Your task to perform on an android device: add a contact Image 0: 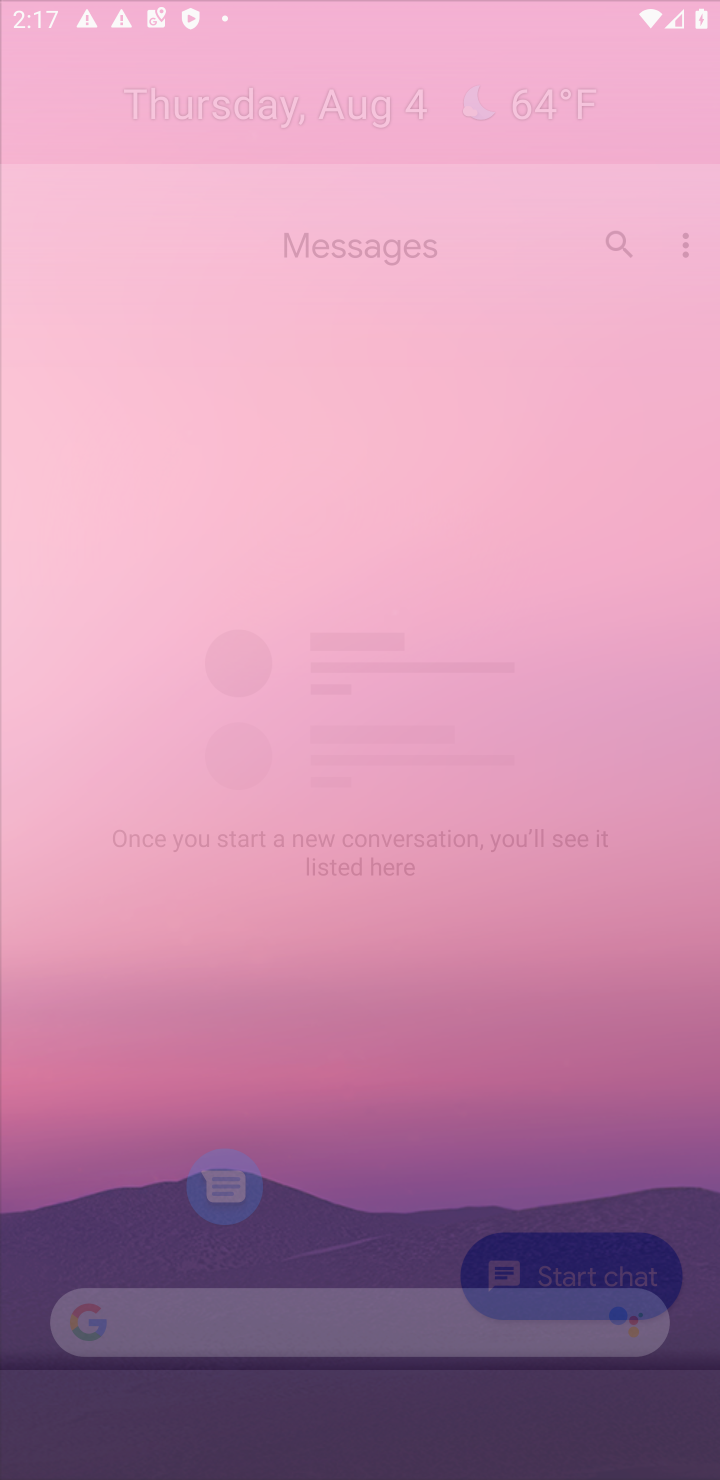
Step 0: press home button
Your task to perform on an android device: add a contact Image 1: 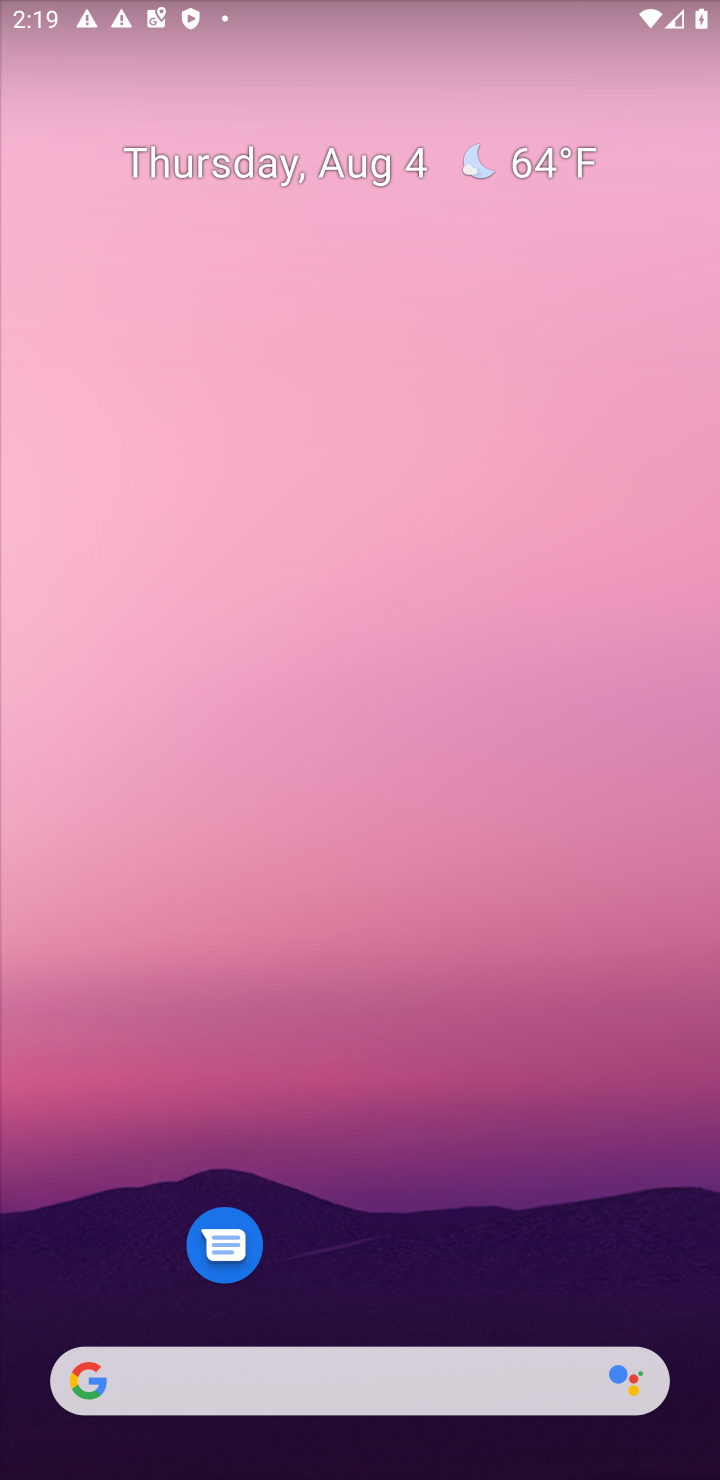
Step 1: press home button
Your task to perform on an android device: add a contact Image 2: 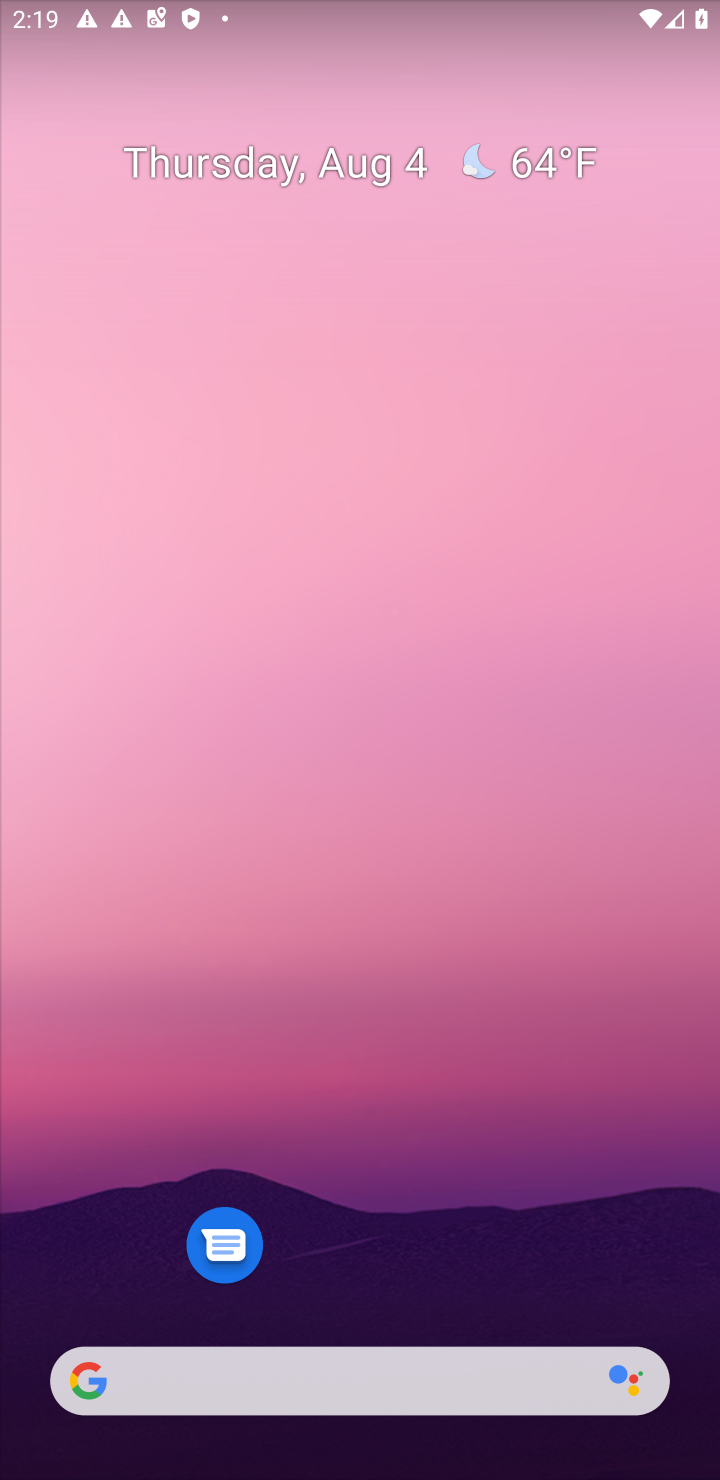
Step 2: drag from (269, 1309) to (323, 483)
Your task to perform on an android device: add a contact Image 3: 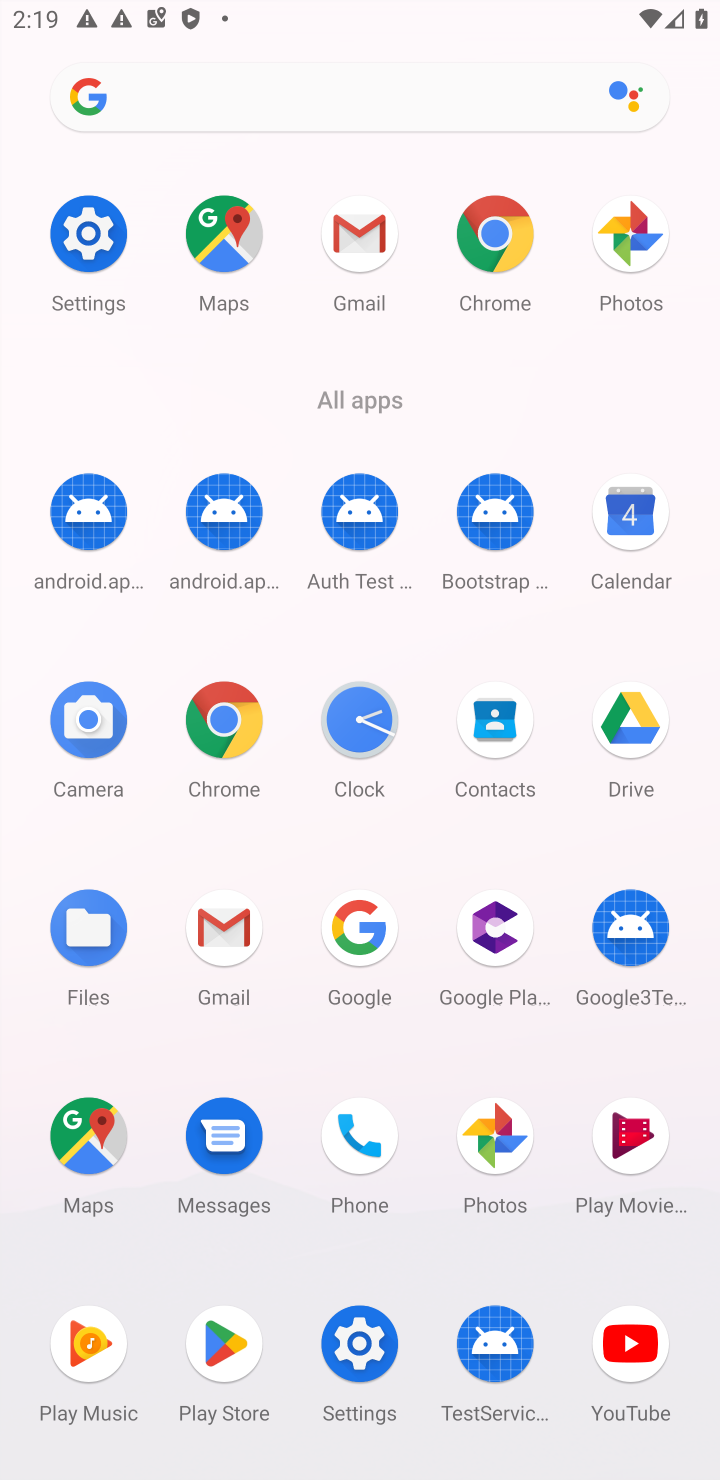
Step 3: click (335, 1117)
Your task to perform on an android device: add a contact Image 4: 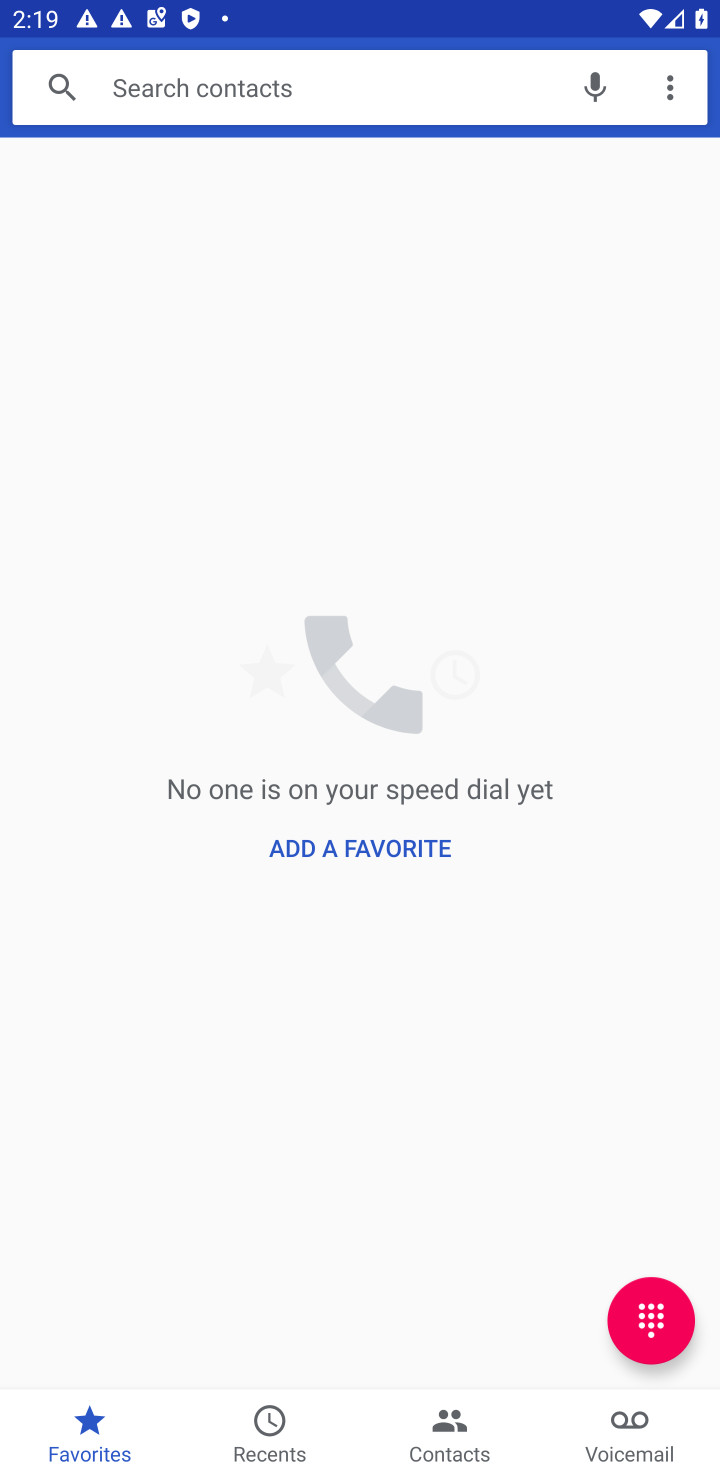
Step 4: click (363, 848)
Your task to perform on an android device: add a contact Image 5: 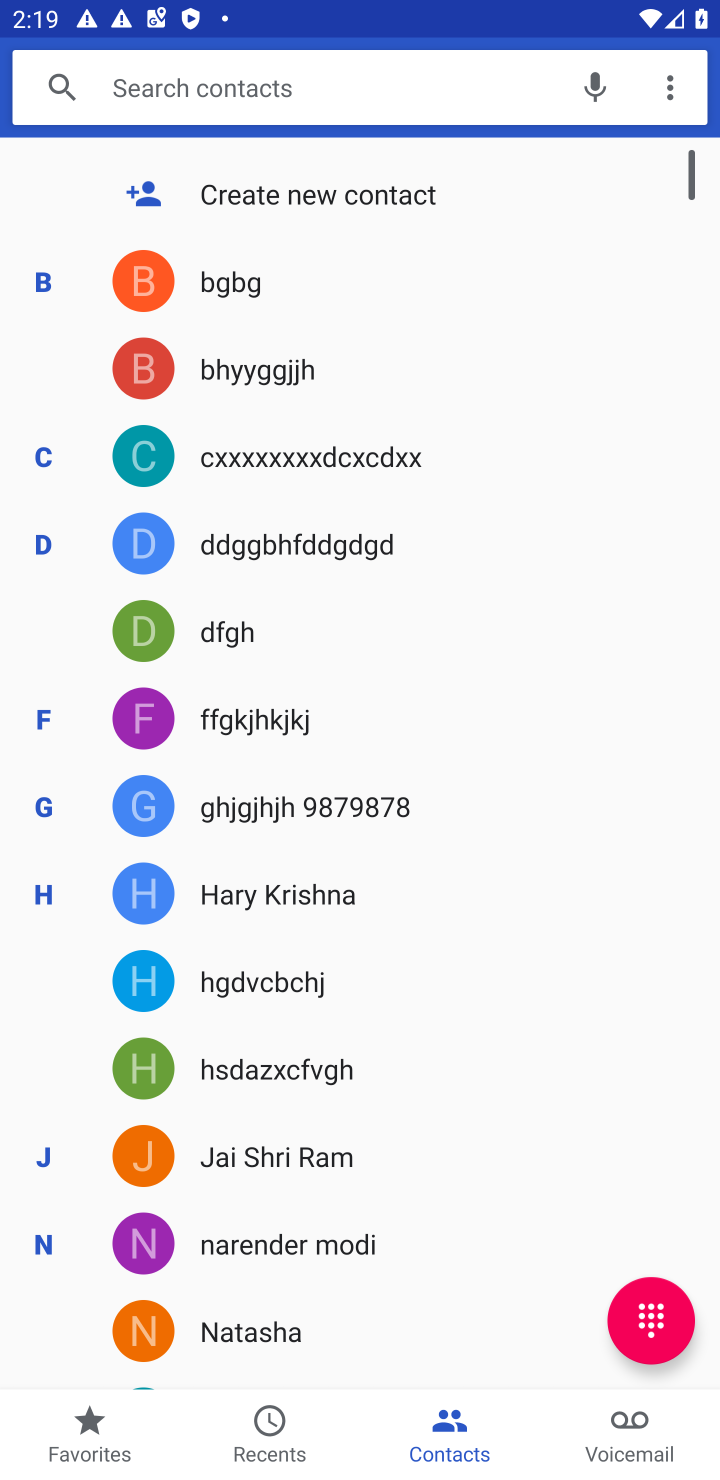
Step 5: click (347, 158)
Your task to perform on an android device: add a contact Image 6: 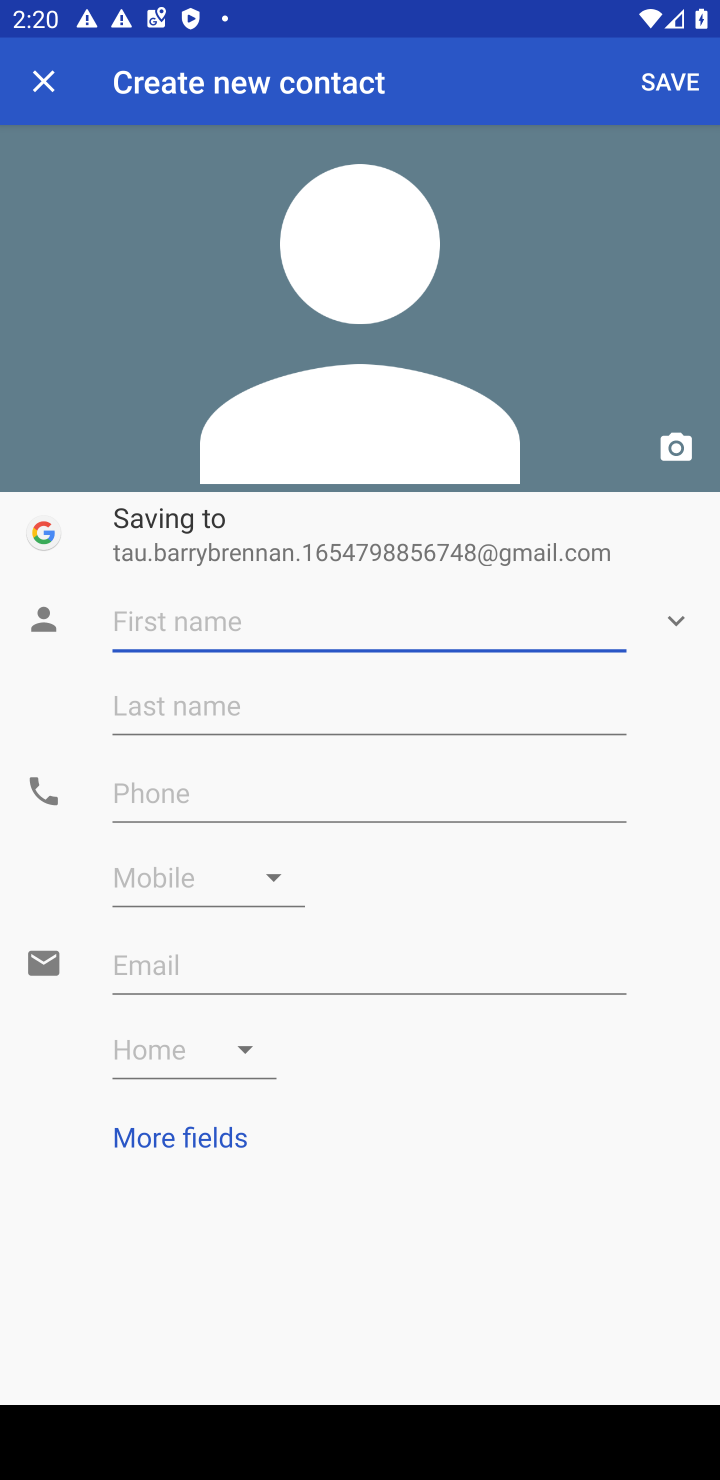
Step 6: click (212, 613)
Your task to perform on an android device: add a contact Image 7: 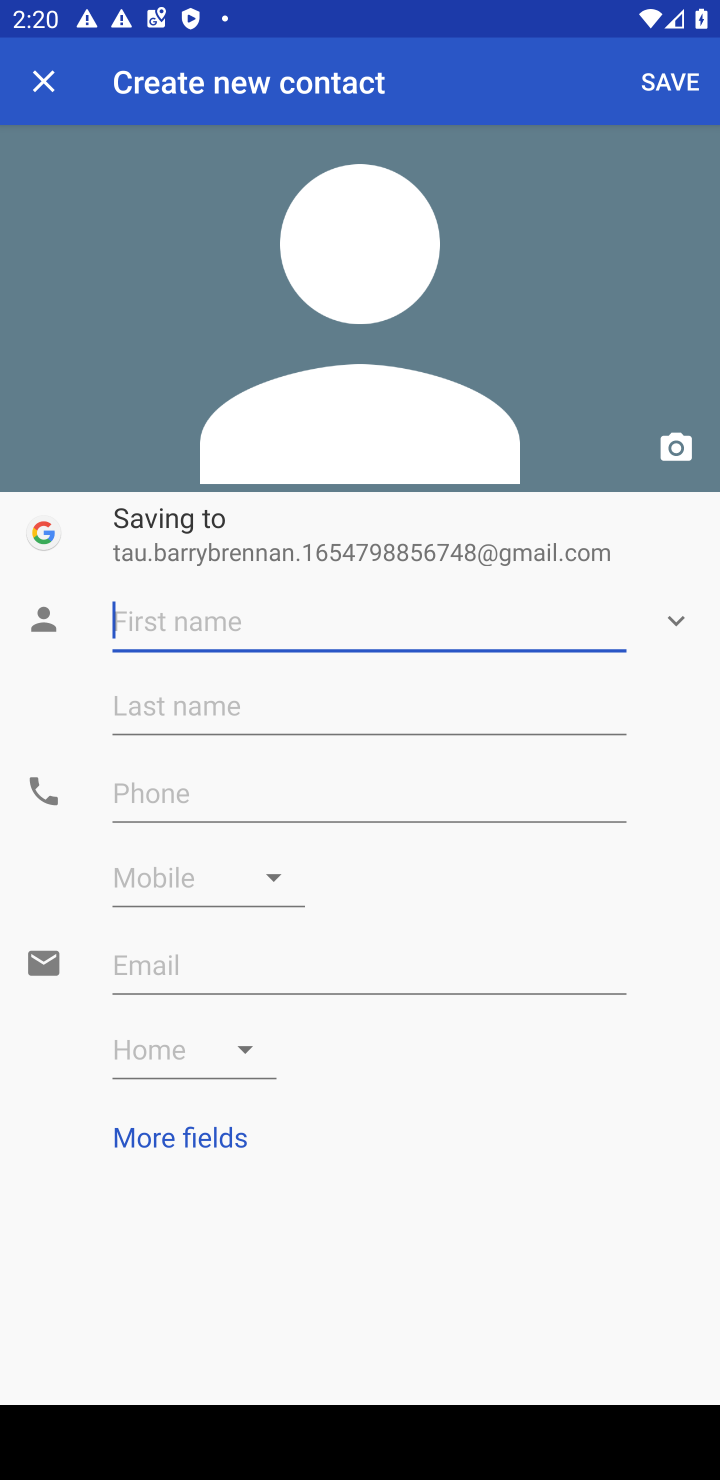
Step 7: type "uhuhuhu "
Your task to perform on an android device: add a contact Image 8: 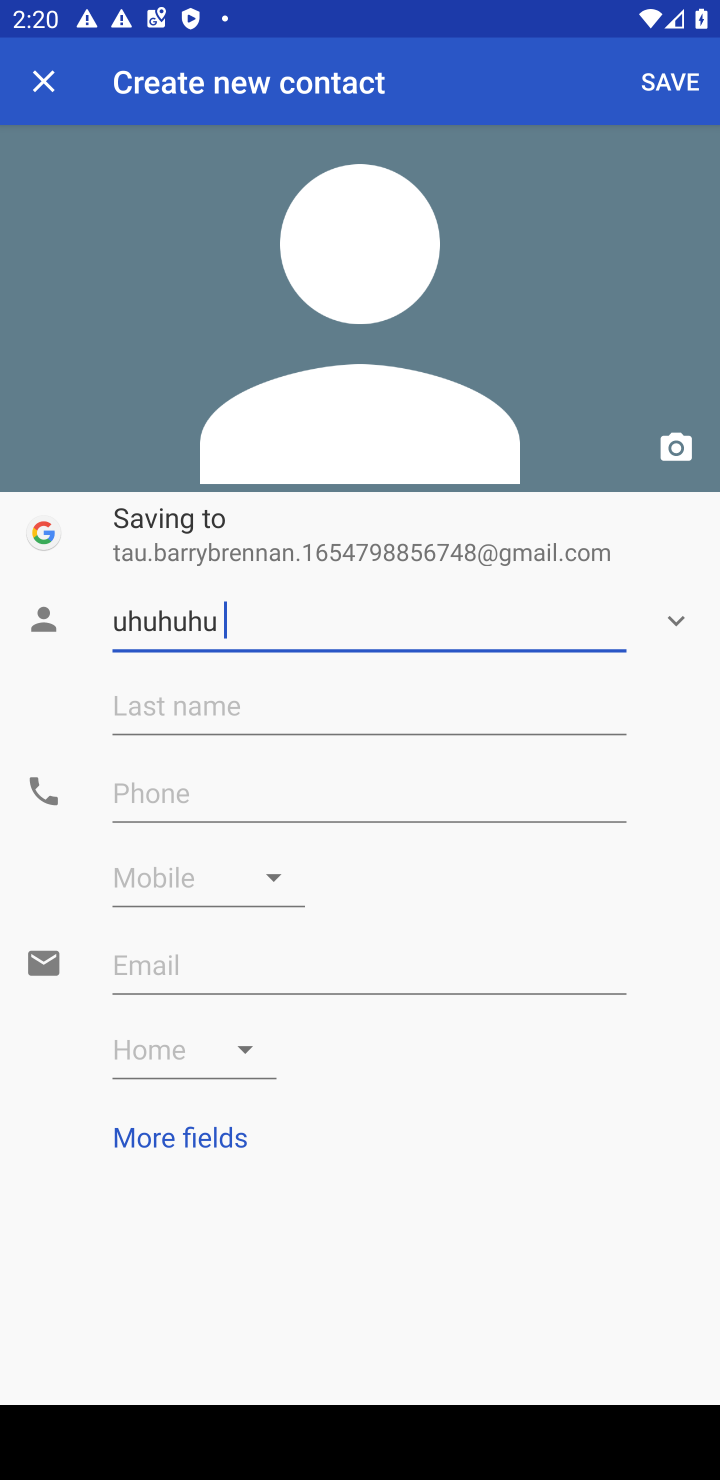
Step 8: click (297, 782)
Your task to perform on an android device: add a contact Image 9: 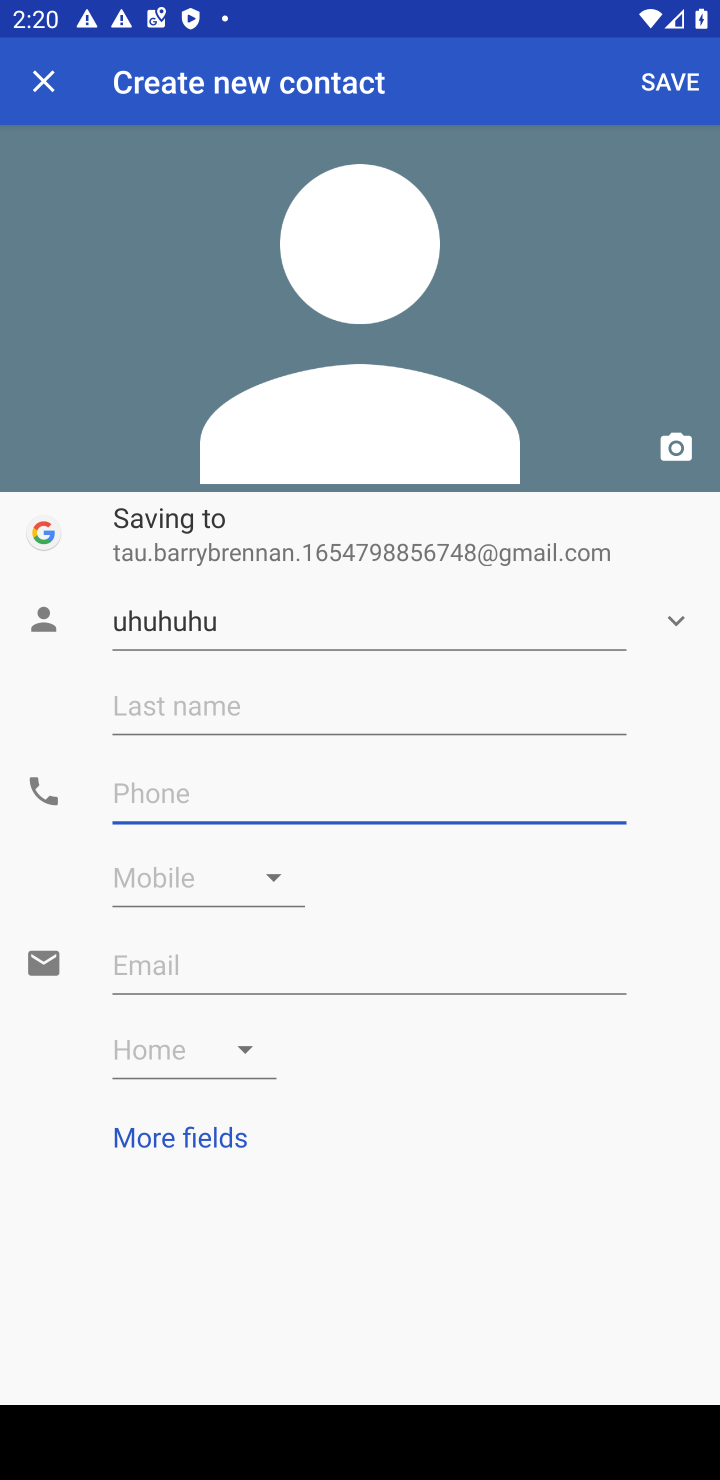
Step 9: type "666666 "
Your task to perform on an android device: add a contact Image 10: 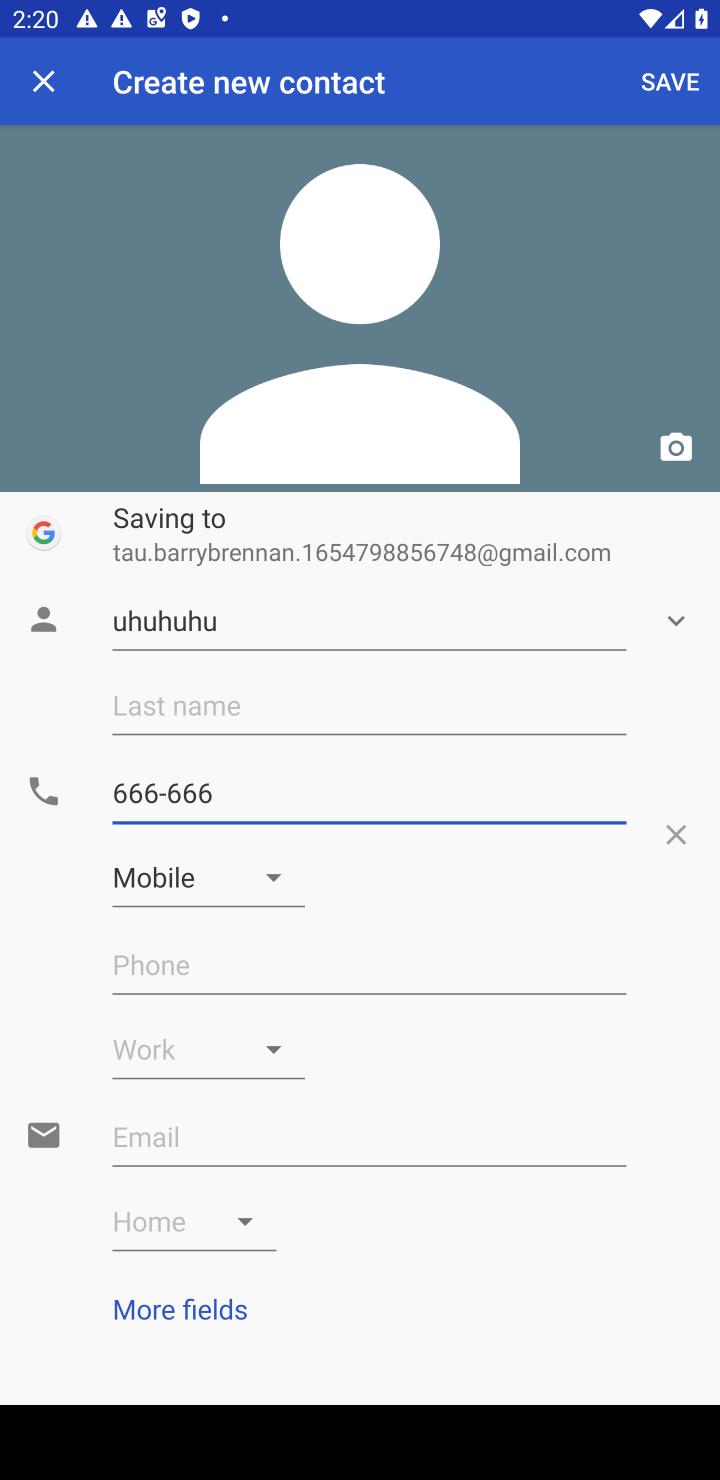
Step 10: click (654, 102)
Your task to perform on an android device: add a contact Image 11: 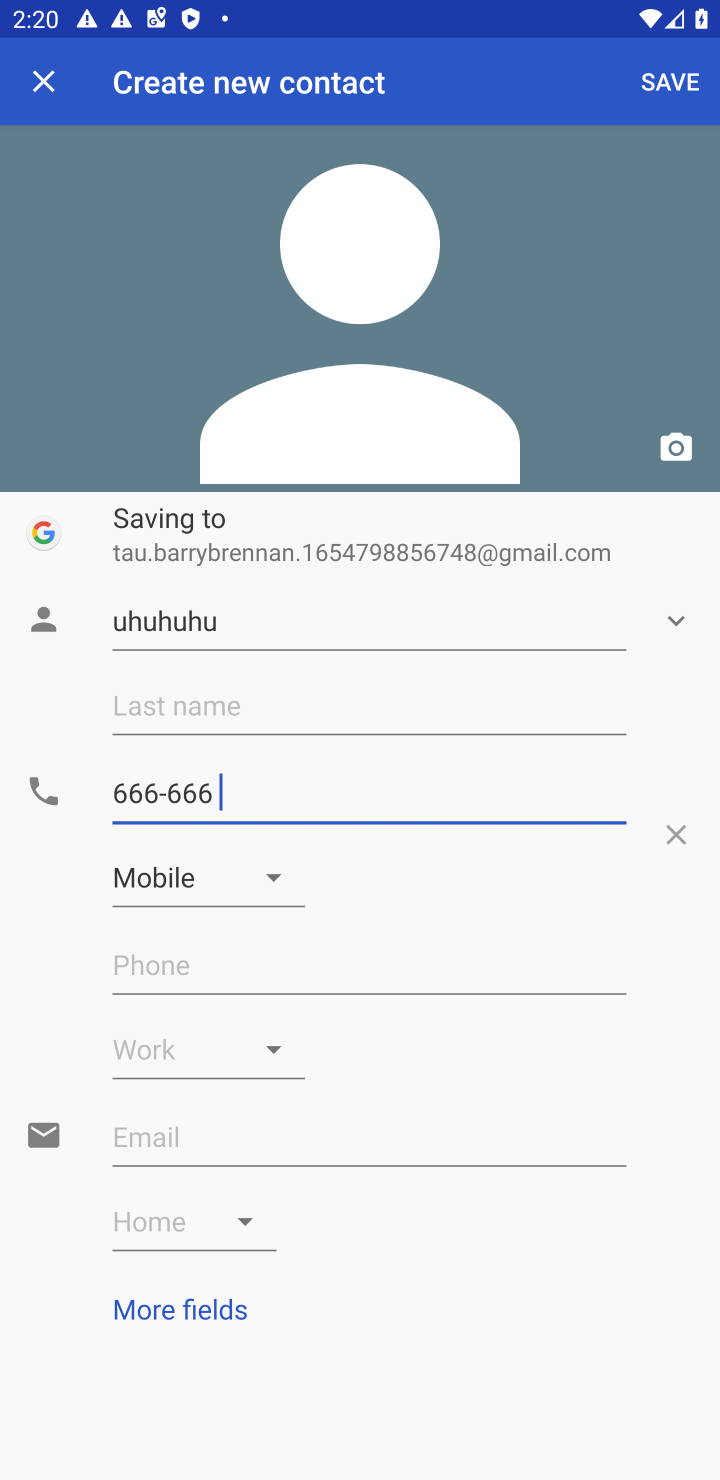
Step 11: task complete